Your task to perform on an android device: Search for vegetarian restaurants on Maps Image 0: 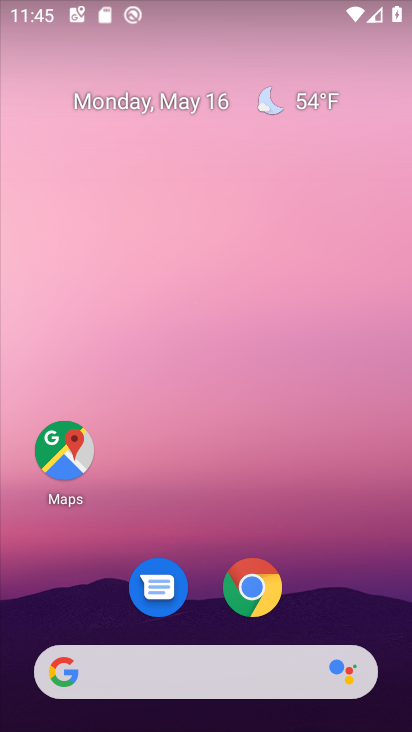
Step 0: click (81, 440)
Your task to perform on an android device: Search for vegetarian restaurants on Maps Image 1: 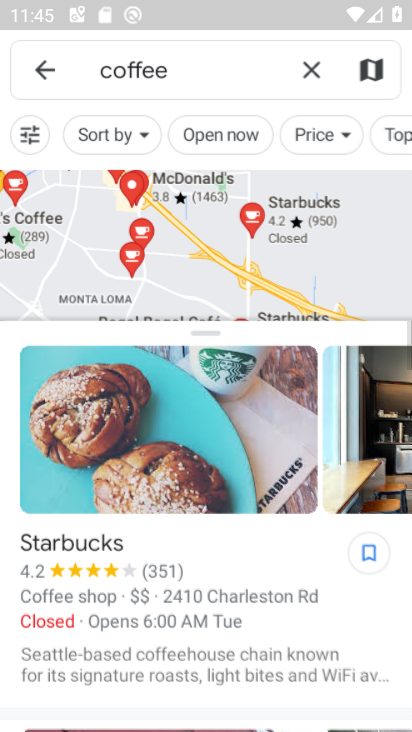
Step 1: click (308, 69)
Your task to perform on an android device: Search for vegetarian restaurants on Maps Image 2: 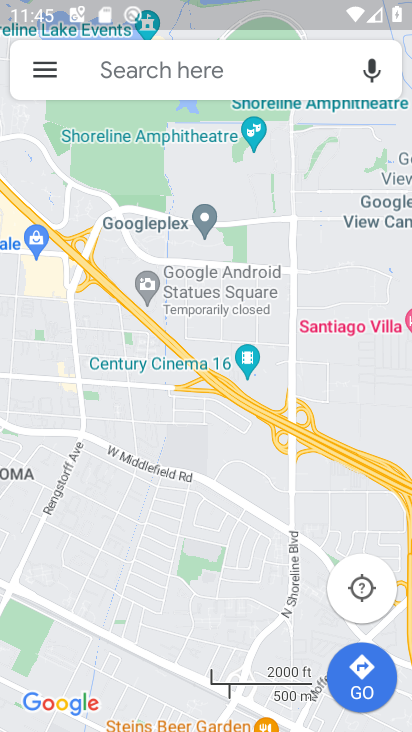
Step 2: click (161, 73)
Your task to perform on an android device: Search for vegetarian restaurants on Maps Image 3: 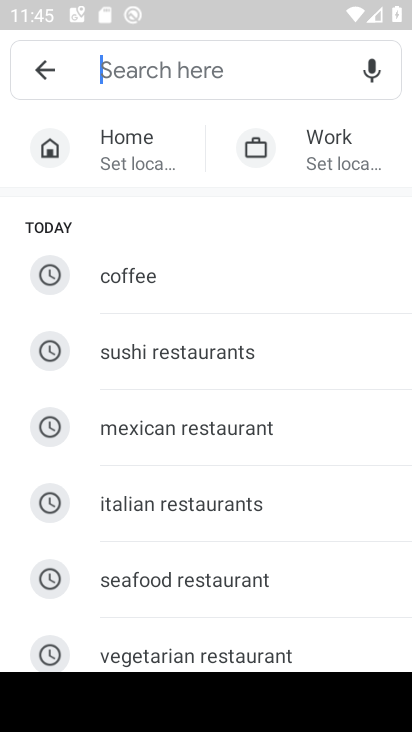
Step 3: type "vegetarian restaurants"
Your task to perform on an android device: Search for vegetarian restaurants on Maps Image 4: 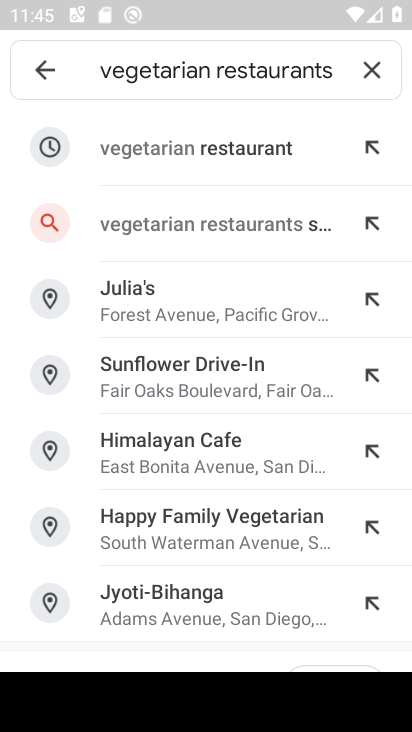
Step 4: click (245, 157)
Your task to perform on an android device: Search for vegetarian restaurants on Maps Image 5: 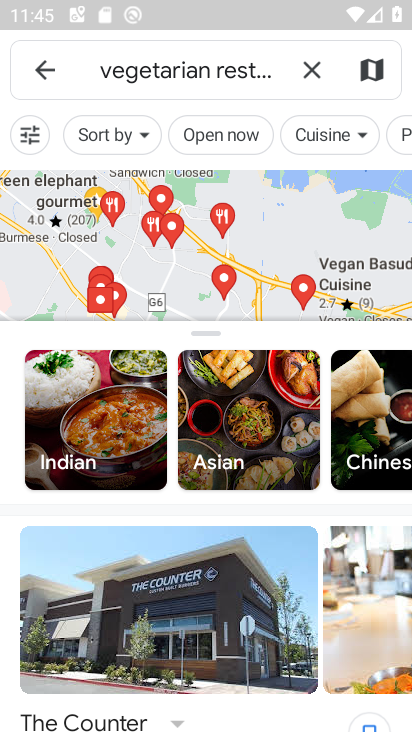
Step 5: task complete